Your task to perform on an android device: turn on wifi Image 0: 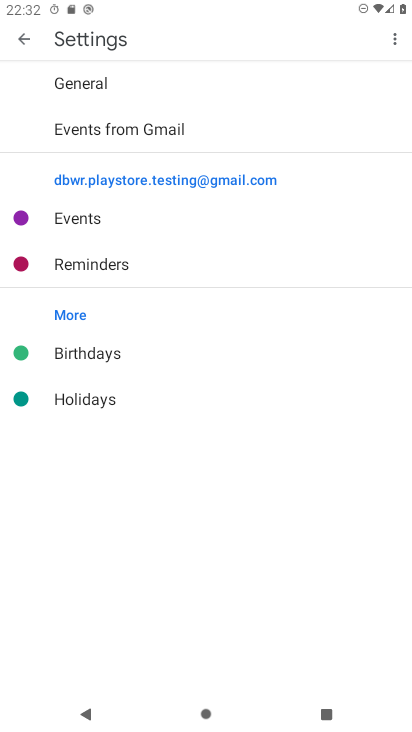
Step 0: press home button
Your task to perform on an android device: turn on wifi Image 1: 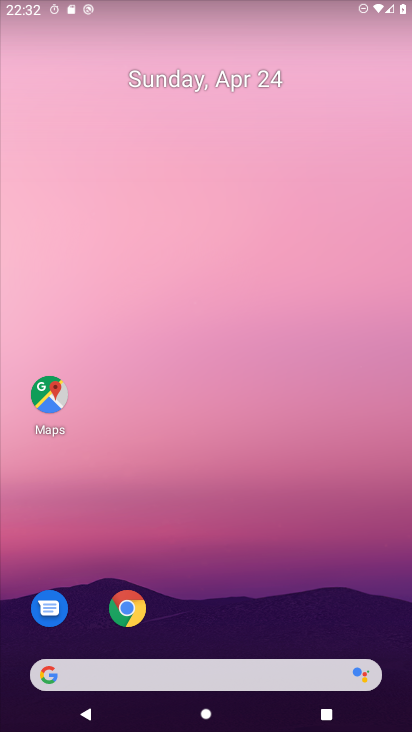
Step 1: drag from (271, 510) to (243, 17)
Your task to perform on an android device: turn on wifi Image 2: 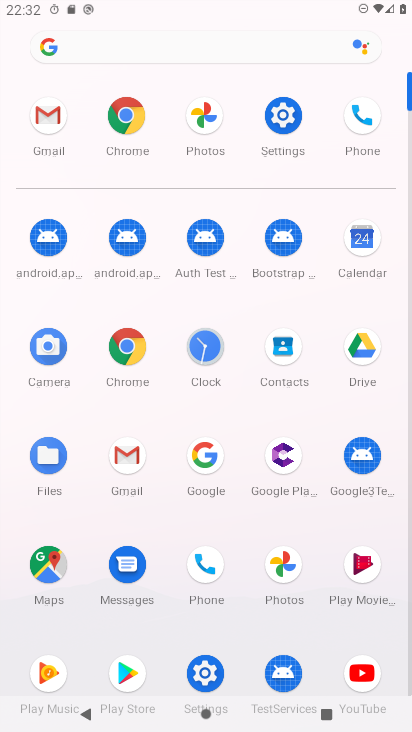
Step 2: click (274, 106)
Your task to perform on an android device: turn on wifi Image 3: 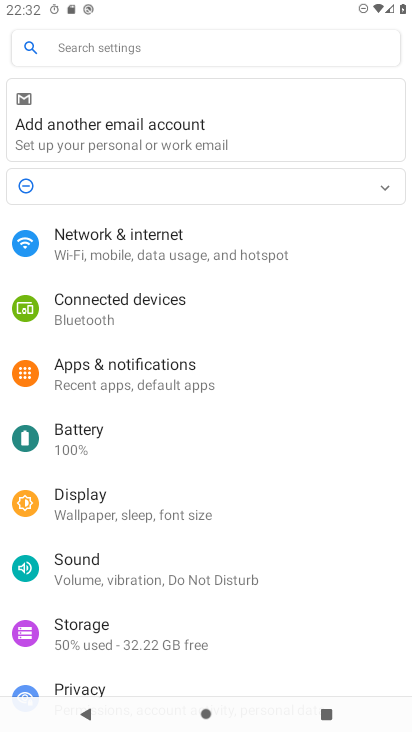
Step 3: click (219, 245)
Your task to perform on an android device: turn on wifi Image 4: 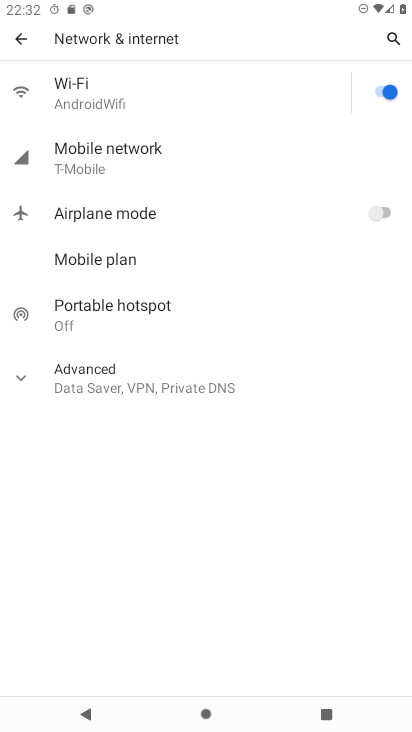
Step 4: task complete